Your task to perform on an android device: Show me popular videos on Youtube Image 0: 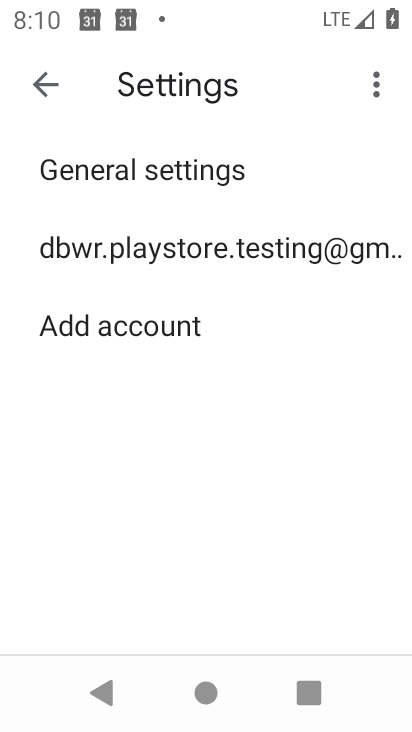
Step 0: press home button
Your task to perform on an android device: Show me popular videos on Youtube Image 1: 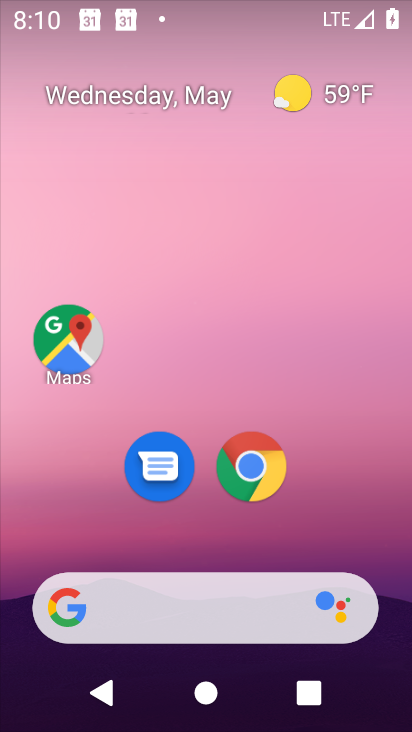
Step 1: drag from (317, 473) to (316, 259)
Your task to perform on an android device: Show me popular videos on Youtube Image 2: 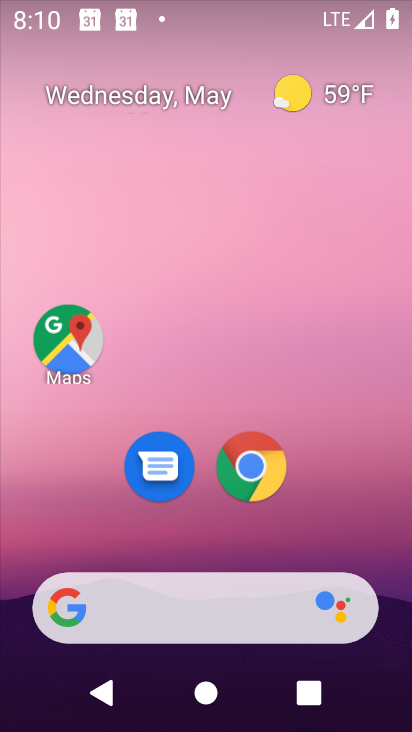
Step 2: drag from (331, 588) to (348, 162)
Your task to perform on an android device: Show me popular videos on Youtube Image 3: 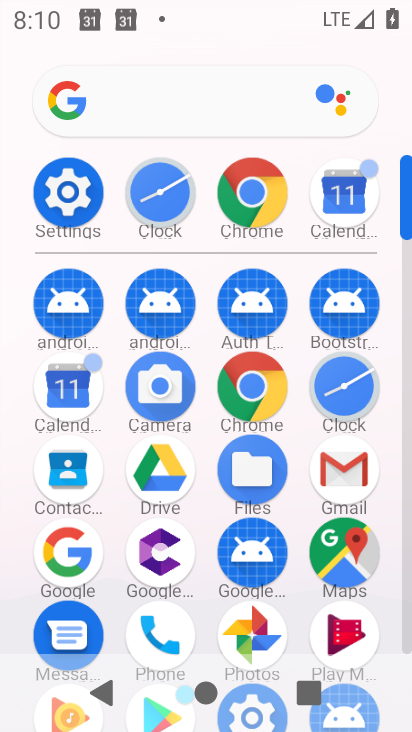
Step 3: click (276, 612)
Your task to perform on an android device: Show me popular videos on Youtube Image 4: 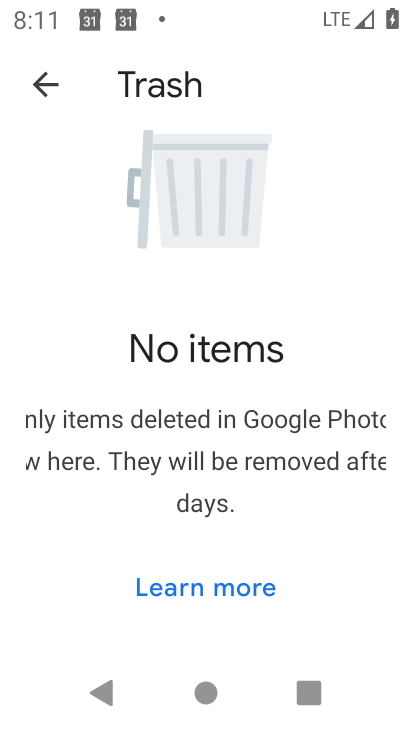
Step 4: press home button
Your task to perform on an android device: Show me popular videos on Youtube Image 5: 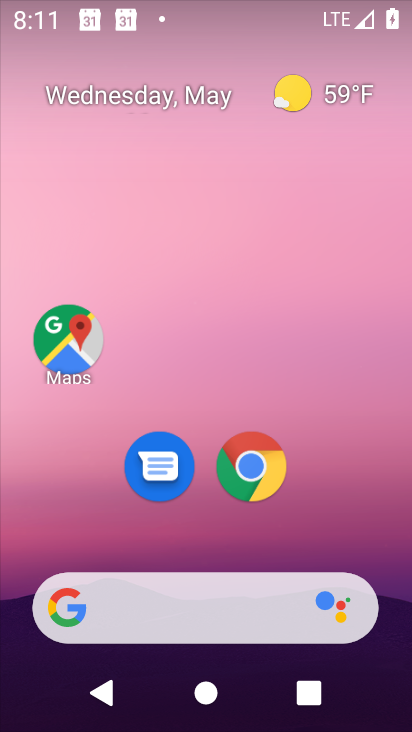
Step 5: drag from (341, 563) to (330, 239)
Your task to perform on an android device: Show me popular videos on Youtube Image 6: 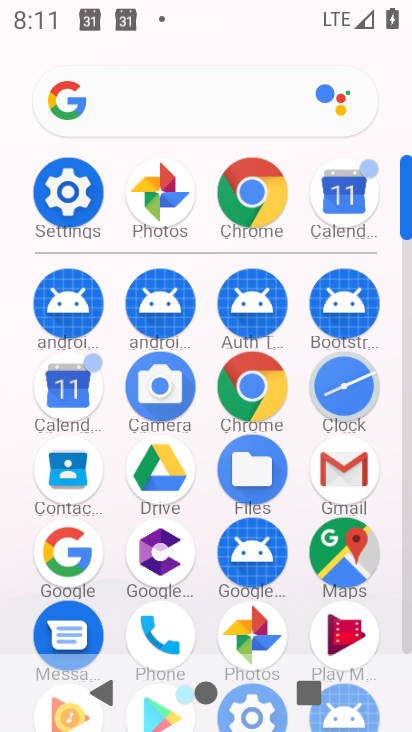
Step 6: drag from (311, 623) to (302, 216)
Your task to perform on an android device: Show me popular videos on Youtube Image 7: 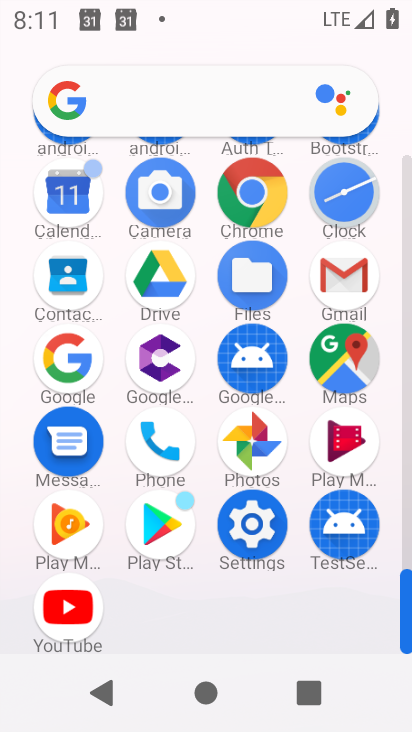
Step 7: click (47, 619)
Your task to perform on an android device: Show me popular videos on Youtube Image 8: 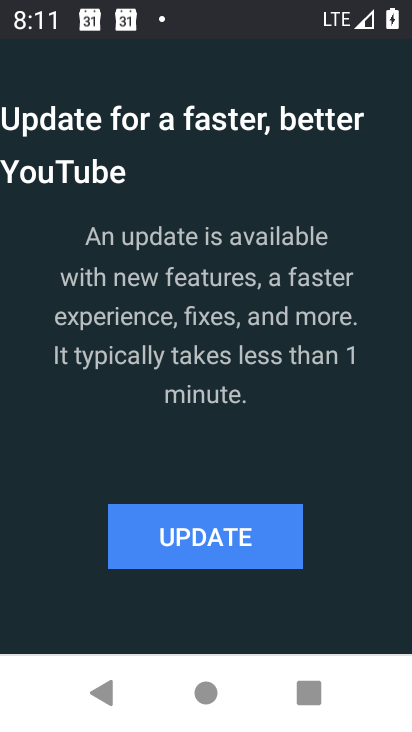
Step 8: task complete